Your task to perform on an android device: Open Chrome and go to the settings page Image 0: 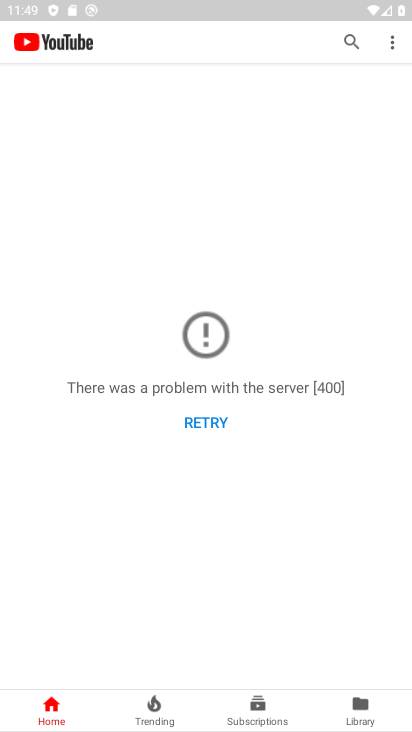
Step 0: press home button
Your task to perform on an android device: Open Chrome and go to the settings page Image 1: 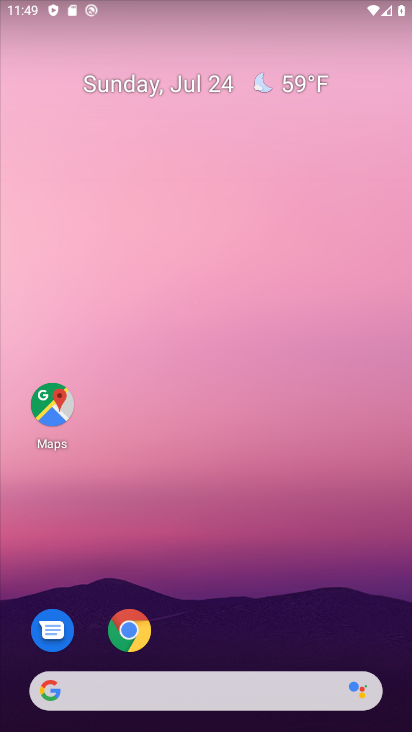
Step 1: click (130, 641)
Your task to perform on an android device: Open Chrome and go to the settings page Image 2: 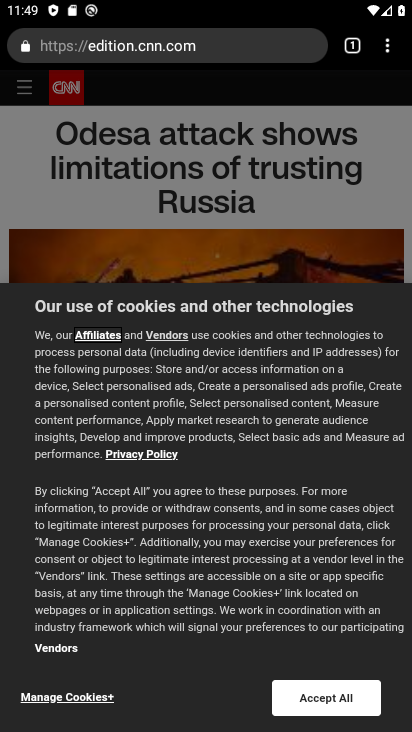
Step 2: click (390, 51)
Your task to perform on an android device: Open Chrome and go to the settings page Image 3: 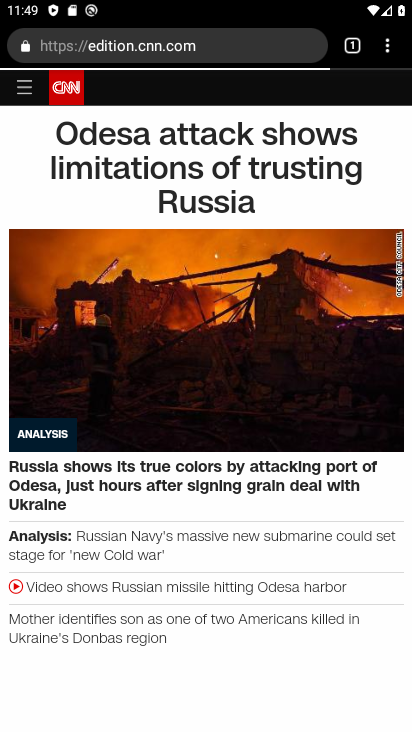
Step 3: click (387, 46)
Your task to perform on an android device: Open Chrome and go to the settings page Image 4: 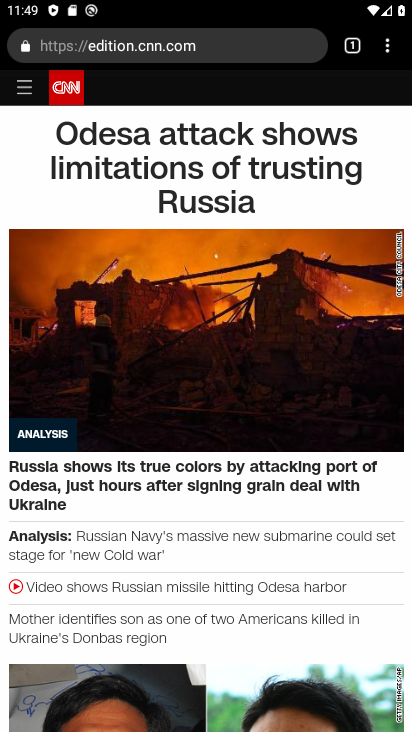
Step 4: click (387, 46)
Your task to perform on an android device: Open Chrome and go to the settings page Image 5: 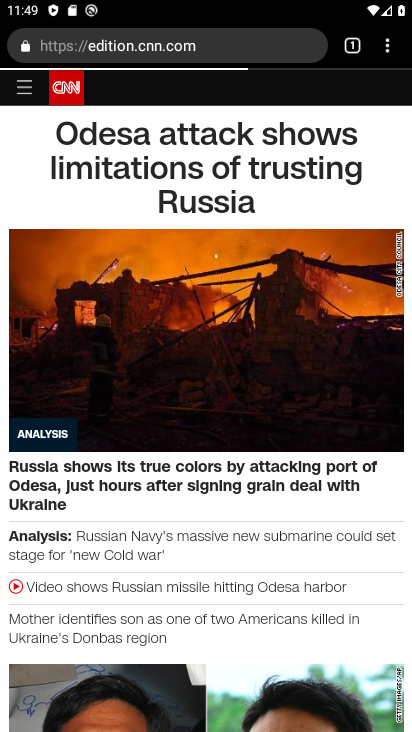
Step 5: click (387, 46)
Your task to perform on an android device: Open Chrome and go to the settings page Image 6: 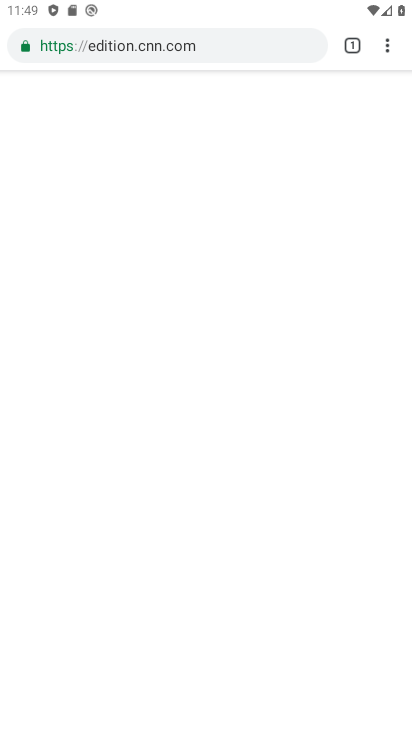
Step 6: click (381, 47)
Your task to perform on an android device: Open Chrome and go to the settings page Image 7: 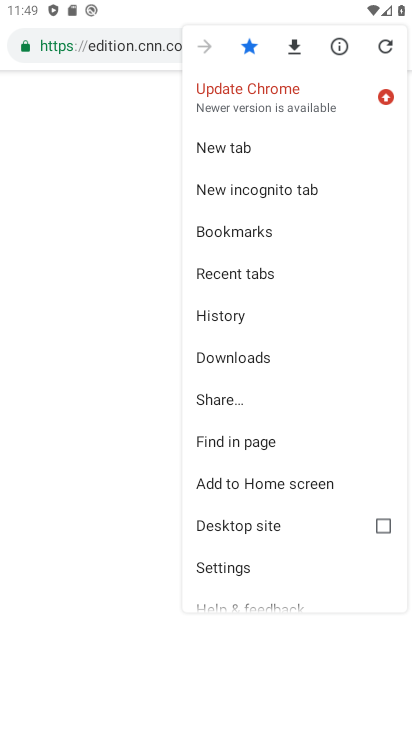
Step 7: click (213, 565)
Your task to perform on an android device: Open Chrome and go to the settings page Image 8: 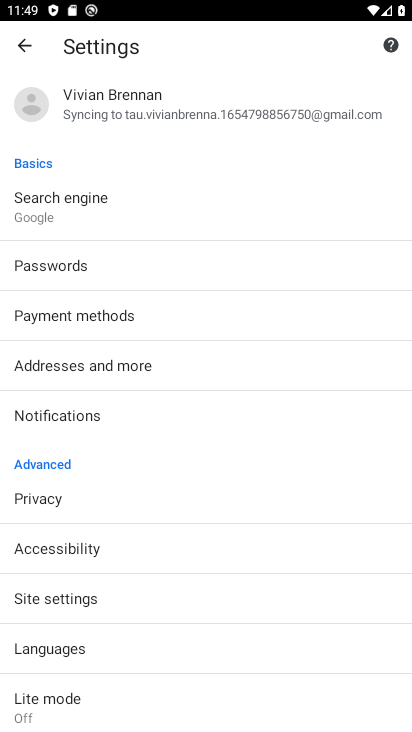
Step 8: task complete